Your task to perform on an android device: Open network settings Image 0: 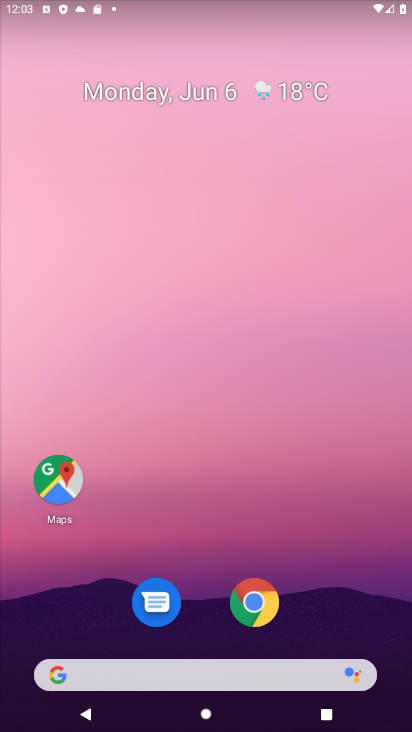
Step 0: drag from (352, 608) to (272, 87)
Your task to perform on an android device: Open network settings Image 1: 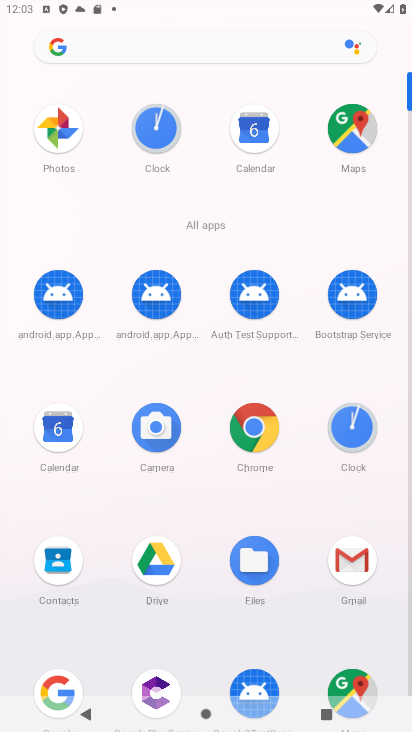
Step 1: click (411, 691)
Your task to perform on an android device: Open network settings Image 2: 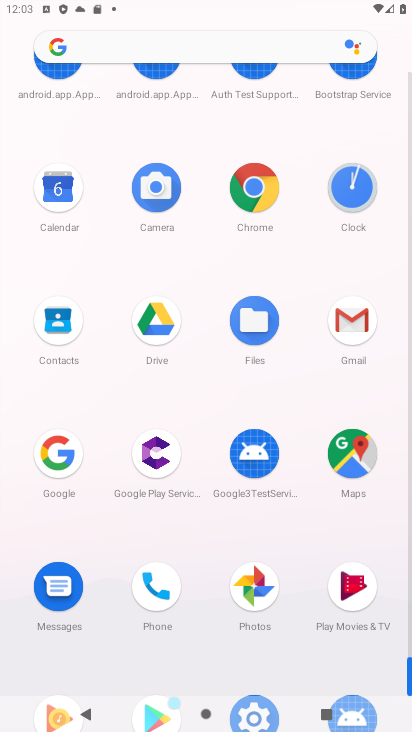
Step 2: click (411, 691)
Your task to perform on an android device: Open network settings Image 3: 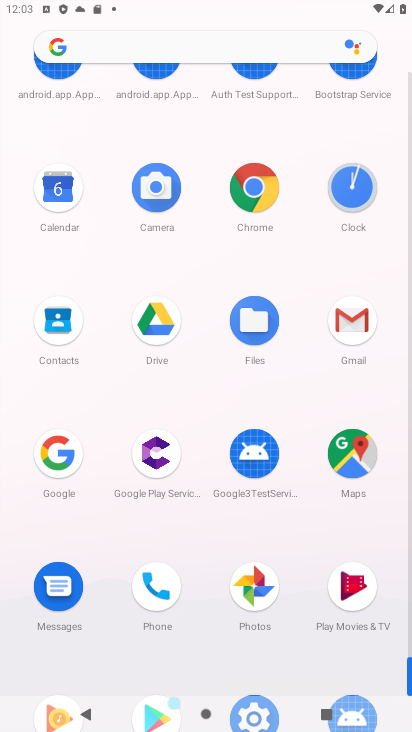
Step 3: click (255, 690)
Your task to perform on an android device: Open network settings Image 4: 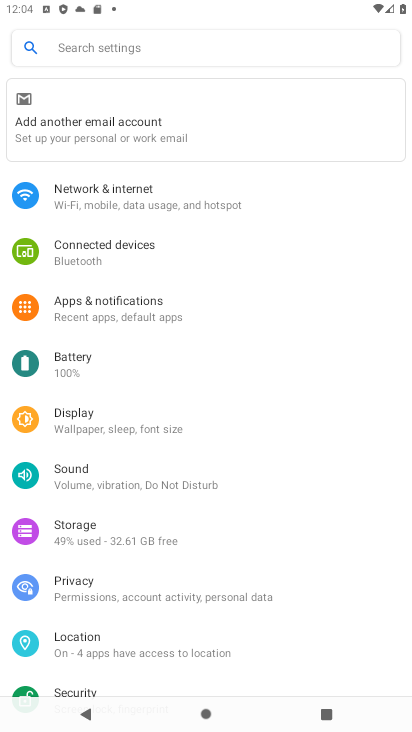
Step 4: task complete